Your task to perform on an android device: Open notification settings Image 0: 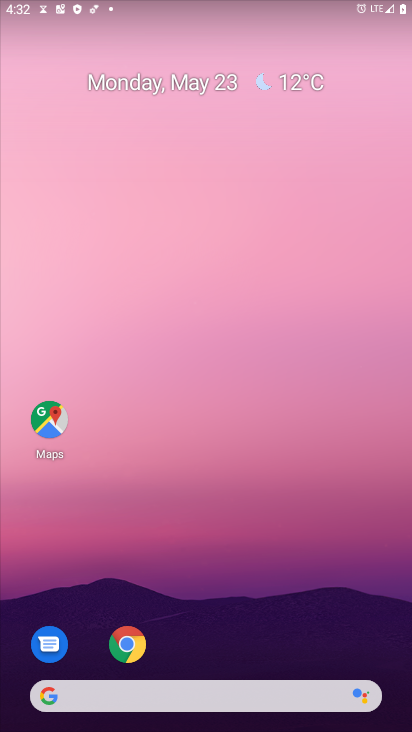
Step 0: drag from (278, 627) to (266, 43)
Your task to perform on an android device: Open notification settings Image 1: 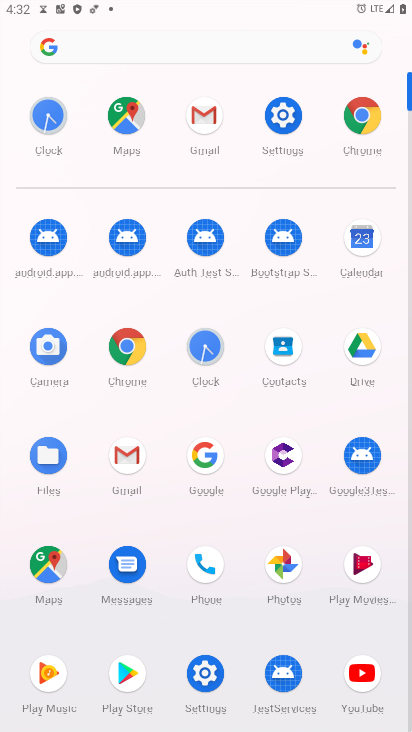
Step 1: click (281, 127)
Your task to perform on an android device: Open notification settings Image 2: 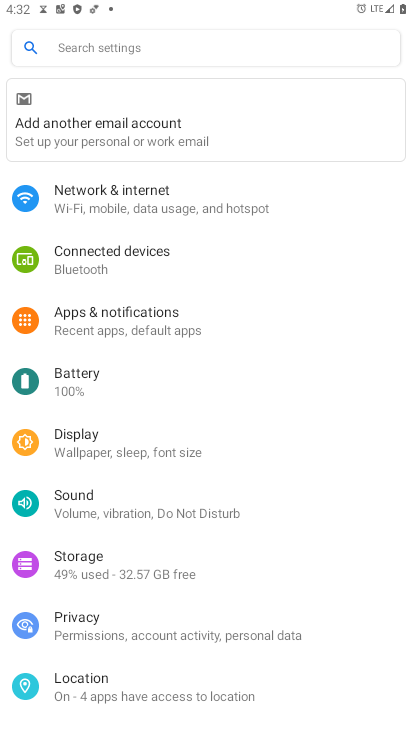
Step 2: click (229, 312)
Your task to perform on an android device: Open notification settings Image 3: 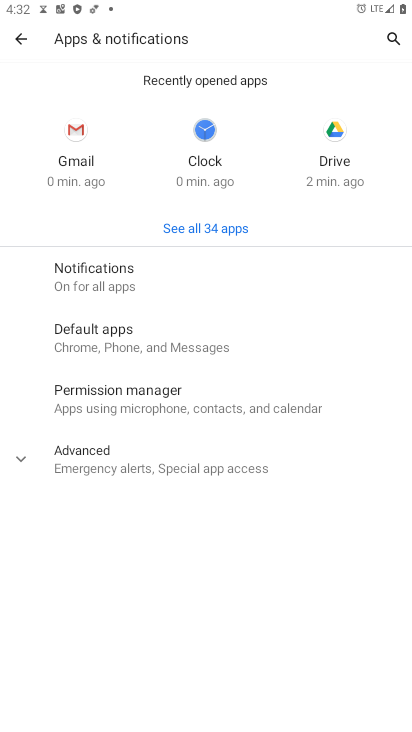
Step 3: click (258, 266)
Your task to perform on an android device: Open notification settings Image 4: 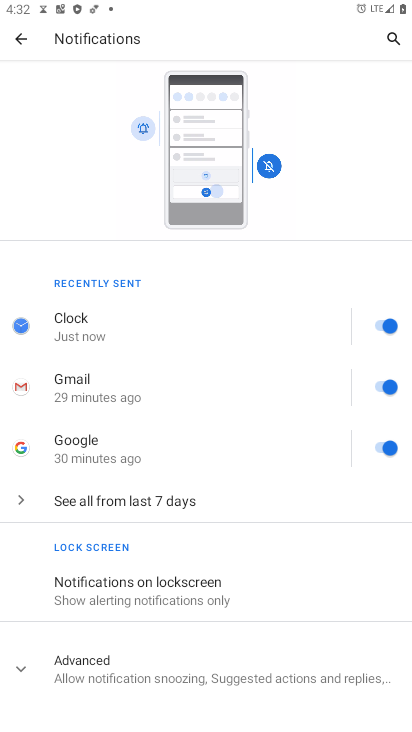
Step 4: task complete